Your task to perform on an android device: Go to network settings Image 0: 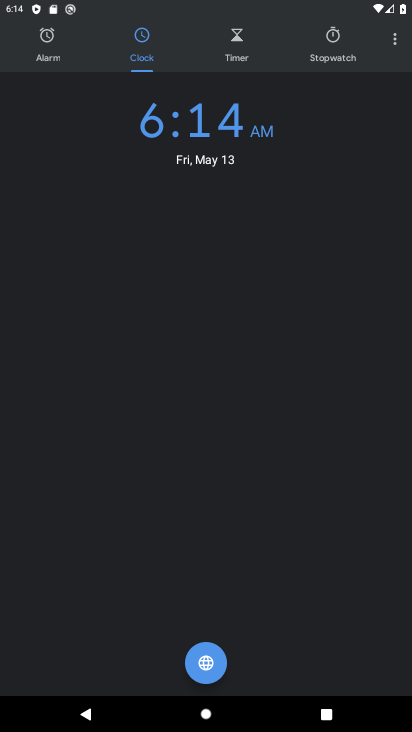
Step 0: press home button
Your task to perform on an android device: Go to network settings Image 1: 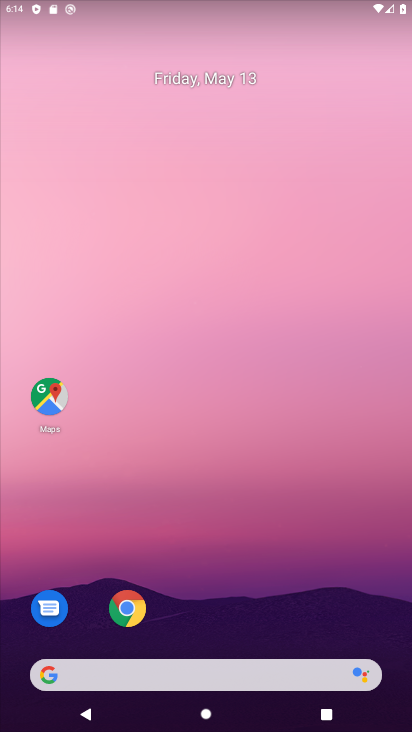
Step 1: drag from (231, 607) to (184, 1)
Your task to perform on an android device: Go to network settings Image 2: 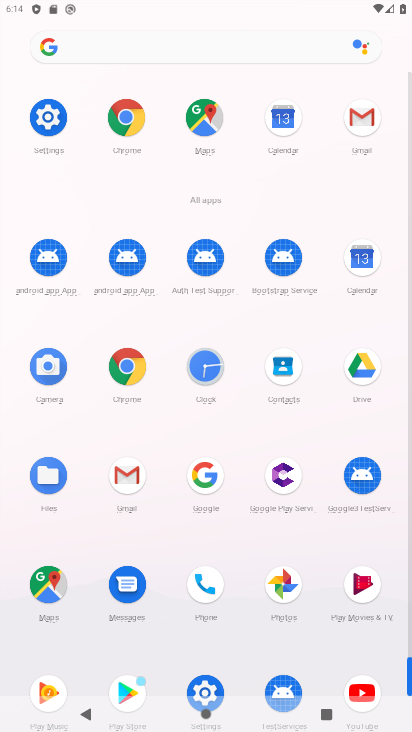
Step 2: click (50, 127)
Your task to perform on an android device: Go to network settings Image 3: 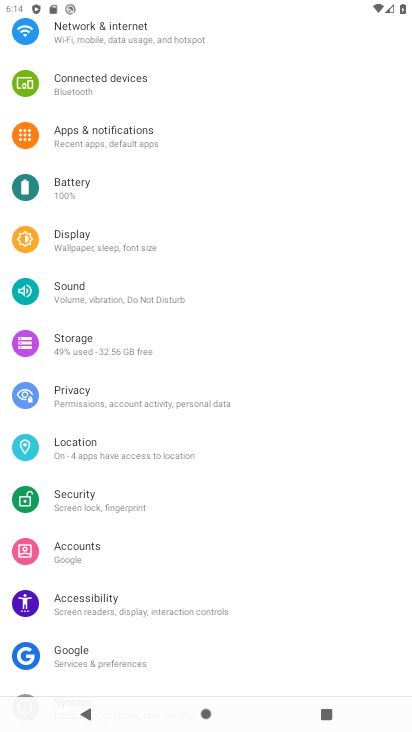
Step 3: drag from (171, 132) to (190, 488)
Your task to perform on an android device: Go to network settings Image 4: 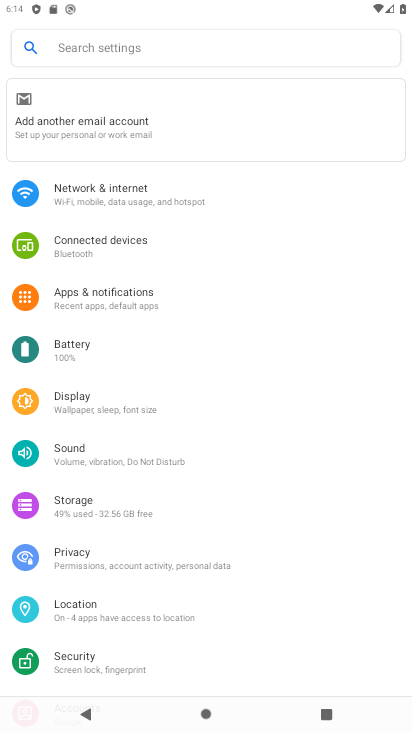
Step 4: click (117, 210)
Your task to perform on an android device: Go to network settings Image 5: 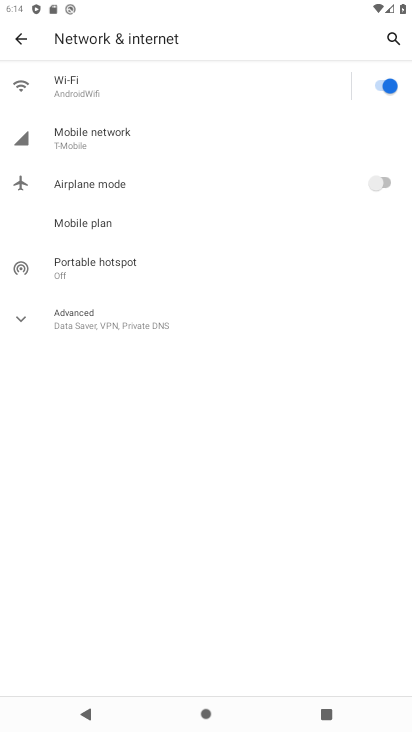
Step 5: task complete